Your task to perform on an android device: toggle pop-ups in chrome Image 0: 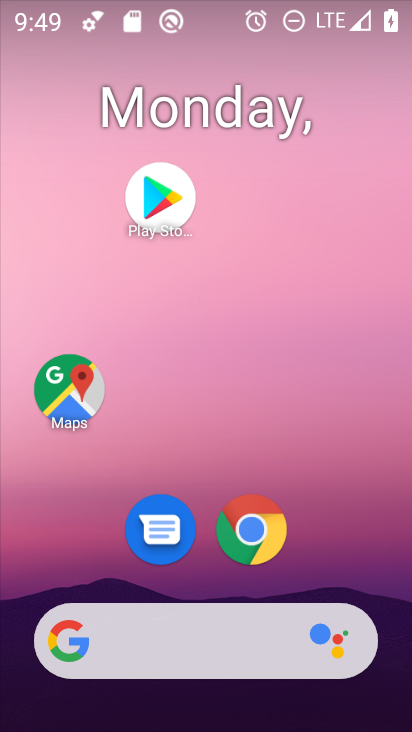
Step 0: click (250, 527)
Your task to perform on an android device: toggle pop-ups in chrome Image 1: 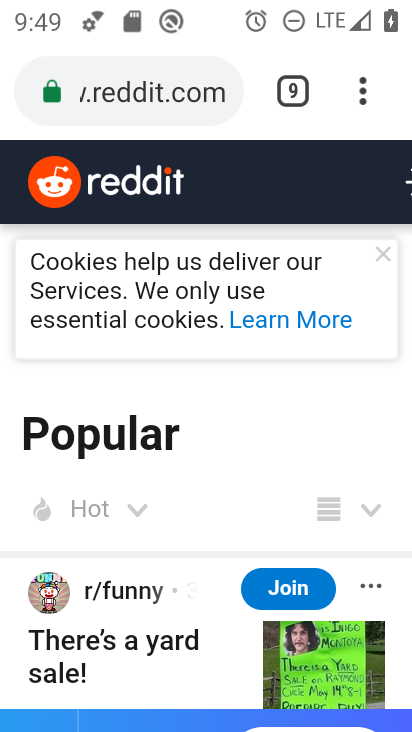
Step 1: click (361, 81)
Your task to perform on an android device: toggle pop-ups in chrome Image 2: 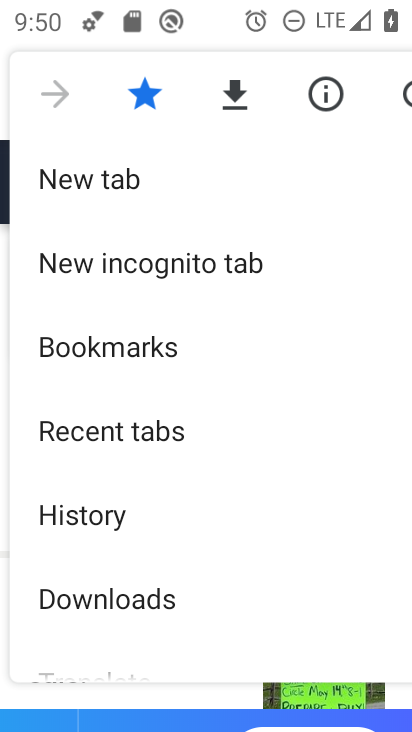
Step 2: drag from (242, 504) to (218, 267)
Your task to perform on an android device: toggle pop-ups in chrome Image 3: 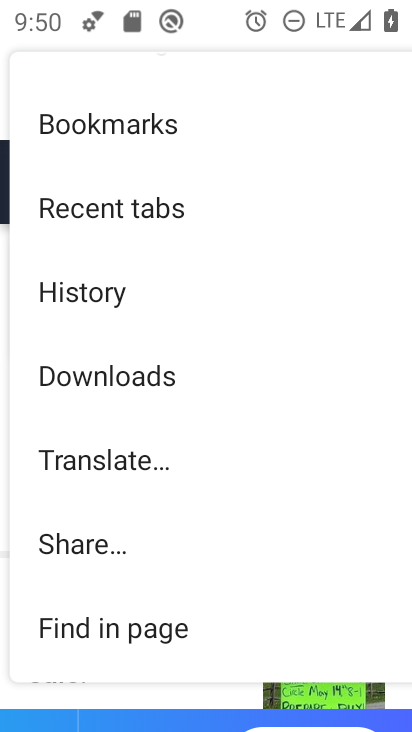
Step 3: drag from (253, 379) to (222, 135)
Your task to perform on an android device: toggle pop-ups in chrome Image 4: 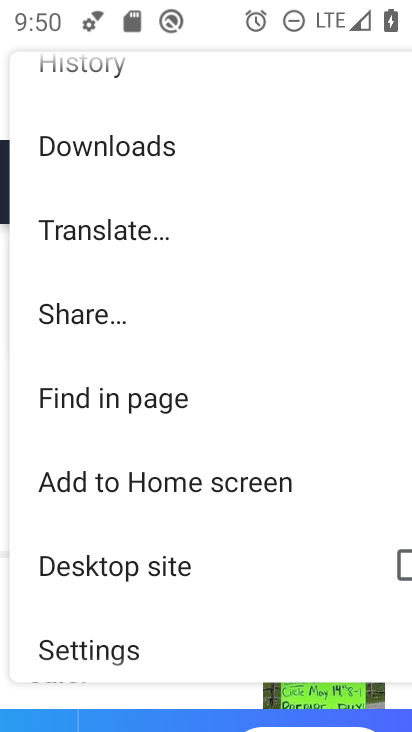
Step 4: click (85, 643)
Your task to perform on an android device: toggle pop-ups in chrome Image 5: 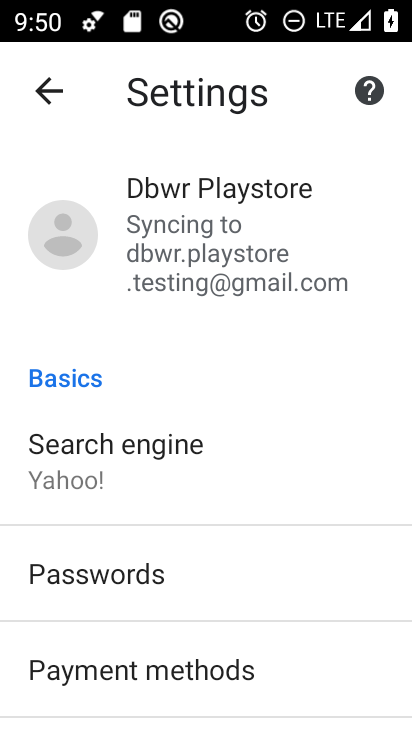
Step 5: drag from (219, 516) to (187, 251)
Your task to perform on an android device: toggle pop-ups in chrome Image 6: 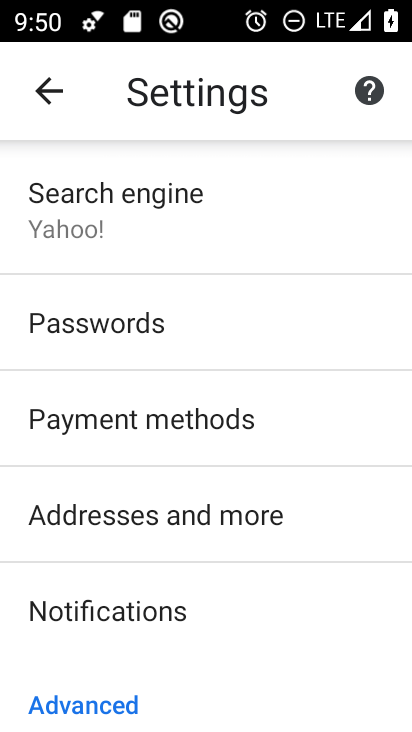
Step 6: drag from (285, 613) to (236, 286)
Your task to perform on an android device: toggle pop-ups in chrome Image 7: 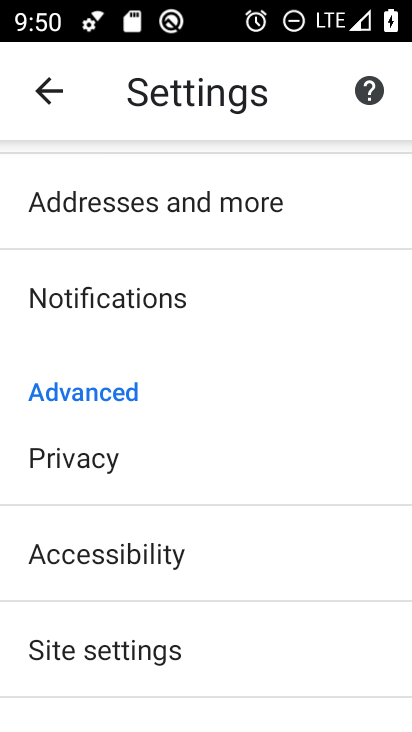
Step 7: click (112, 643)
Your task to perform on an android device: toggle pop-ups in chrome Image 8: 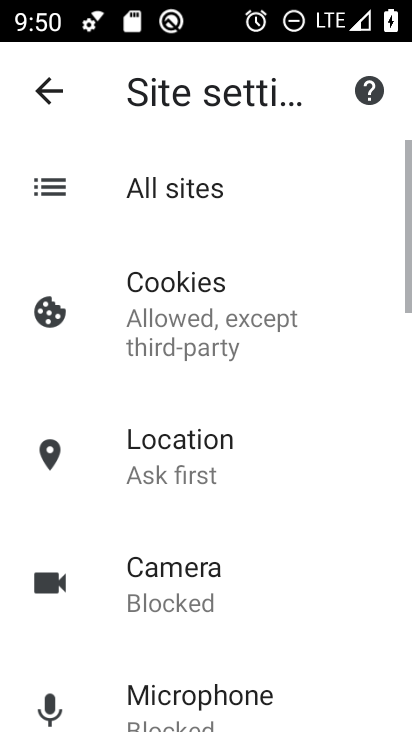
Step 8: drag from (302, 564) to (263, 184)
Your task to perform on an android device: toggle pop-ups in chrome Image 9: 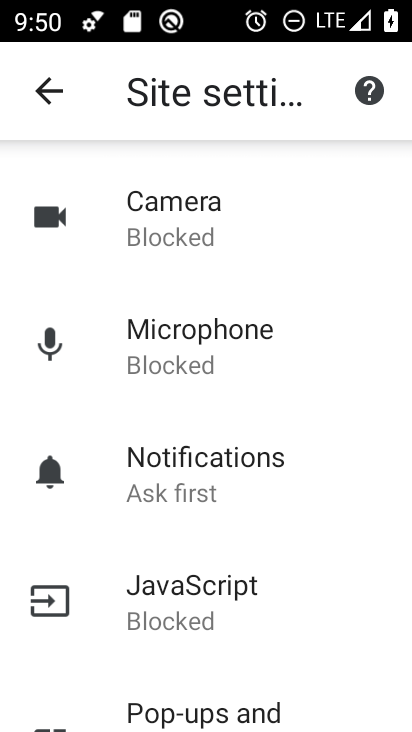
Step 9: click (166, 707)
Your task to perform on an android device: toggle pop-ups in chrome Image 10: 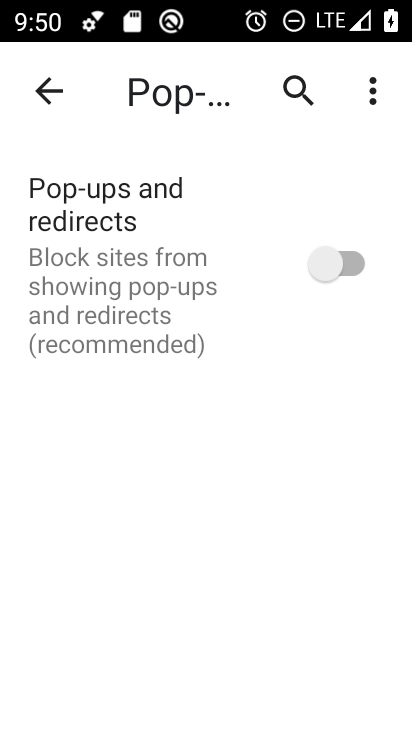
Step 10: click (333, 264)
Your task to perform on an android device: toggle pop-ups in chrome Image 11: 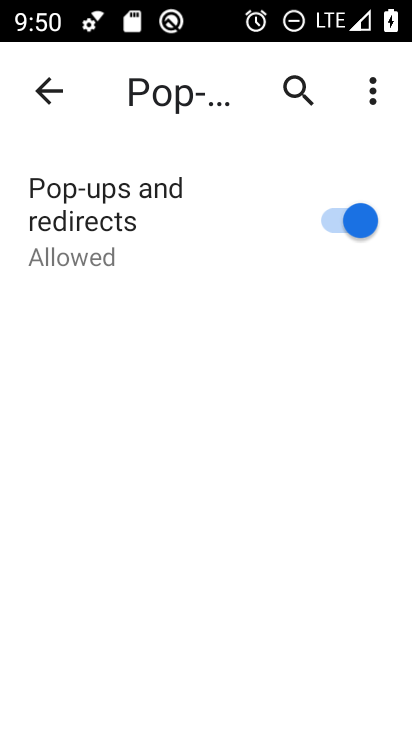
Step 11: task complete